Your task to perform on an android device: Go to Amazon Image 0: 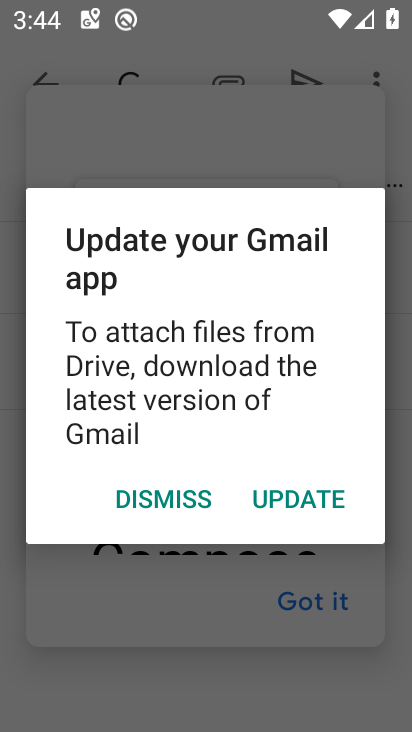
Step 0: click (169, 496)
Your task to perform on an android device: Go to Amazon Image 1: 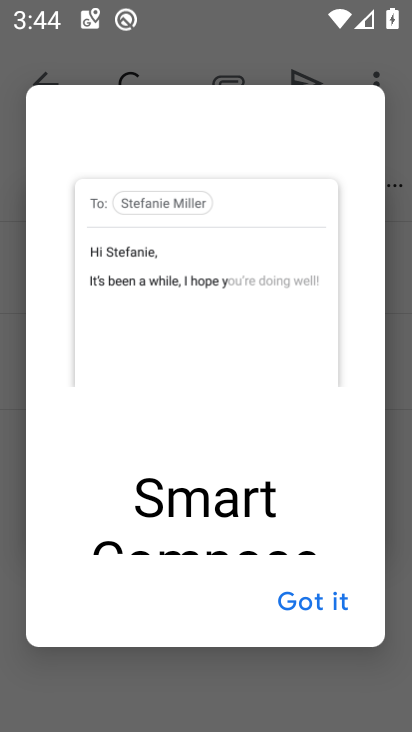
Step 1: click (311, 607)
Your task to perform on an android device: Go to Amazon Image 2: 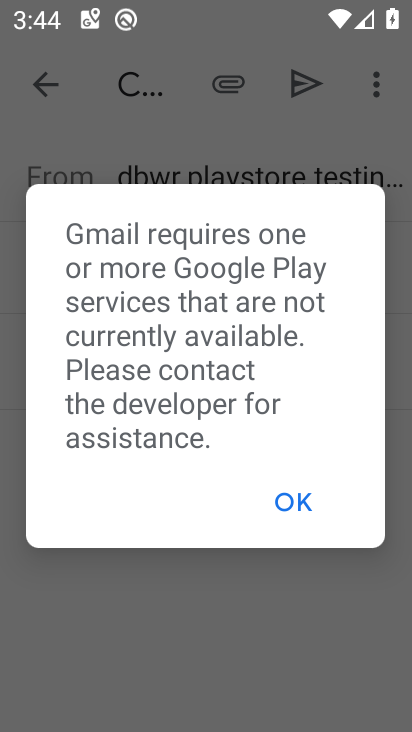
Step 2: click (306, 492)
Your task to perform on an android device: Go to Amazon Image 3: 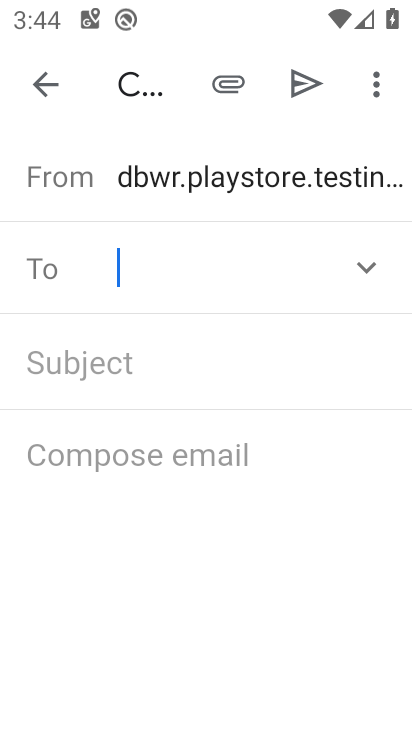
Step 3: click (56, 78)
Your task to perform on an android device: Go to Amazon Image 4: 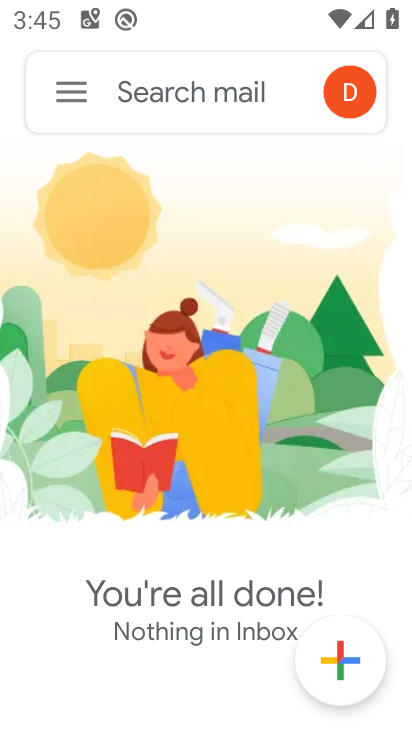
Step 4: press back button
Your task to perform on an android device: Go to Amazon Image 5: 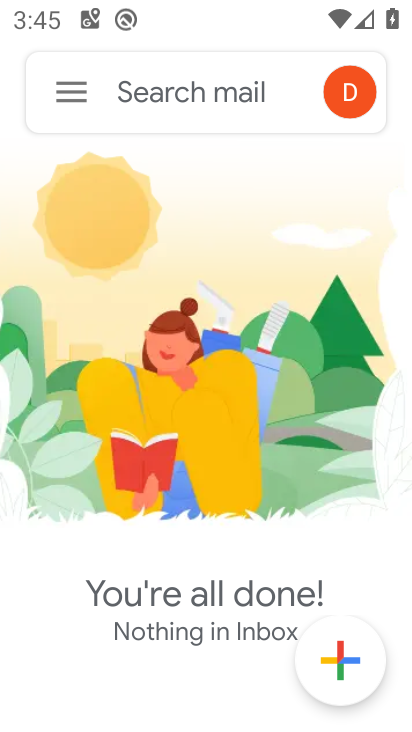
Step 5: press back button
Your task to perform on an android device: Go to Amazon Image 6: 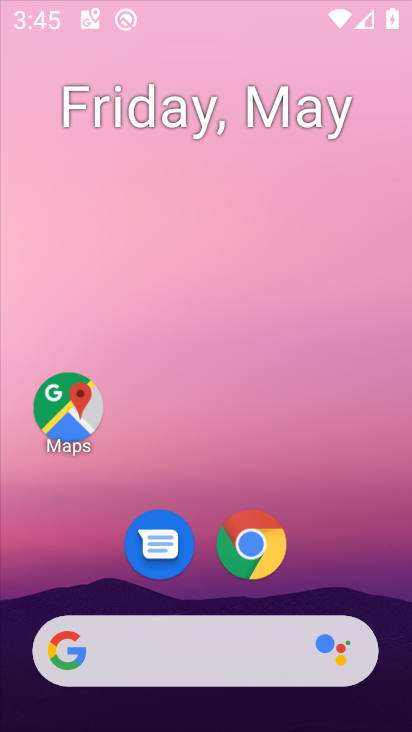
Step 6: press back button
Your task to perform on an android device: Go to Amazon Image 7: 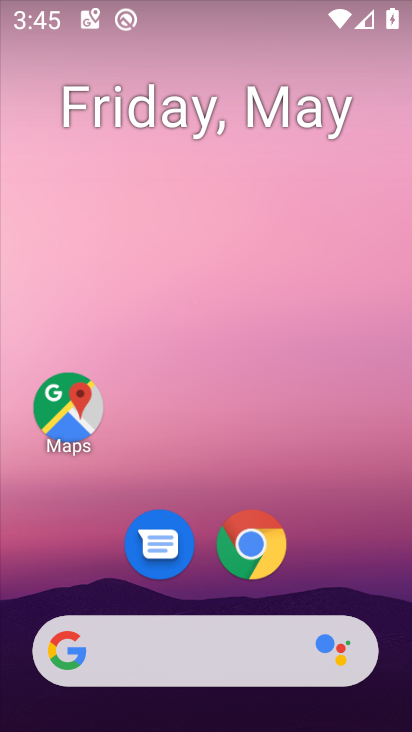
Step 7: drag from (216, 716) to (203, 89)
Your task to perform on an android device: Go to Amazon Image 8: 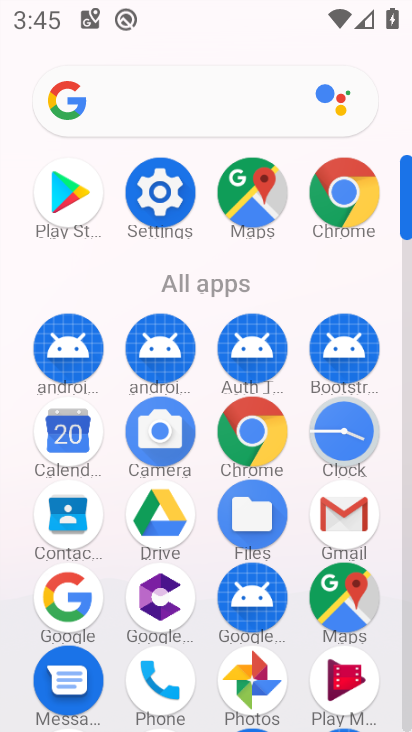
Step 8: click (341, 193)
Your task to perform on an android device: Go to Amazon Image 9: 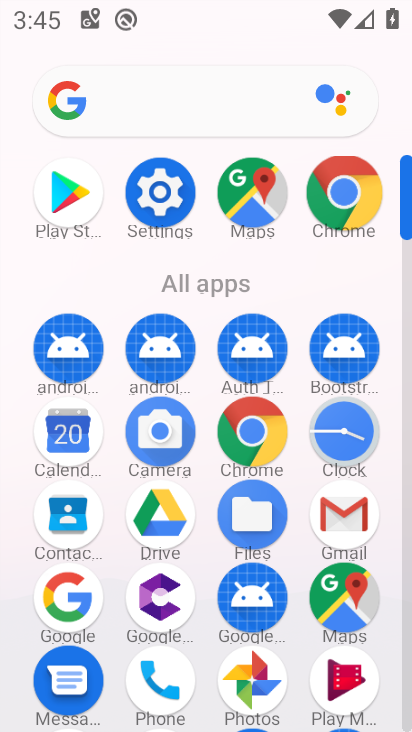
Step 9: click (341, 193)
Your task to perform on an android device: Go to Amazon Image 10: 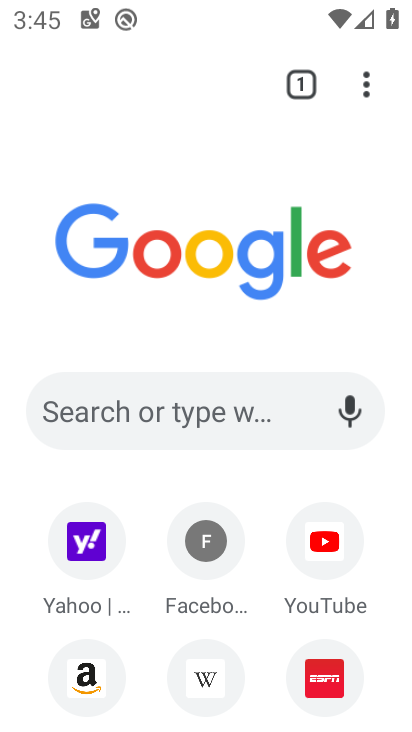
Step 10: click (61, 664)
Your task to perform on an android device: Go to Amazon Image 11: 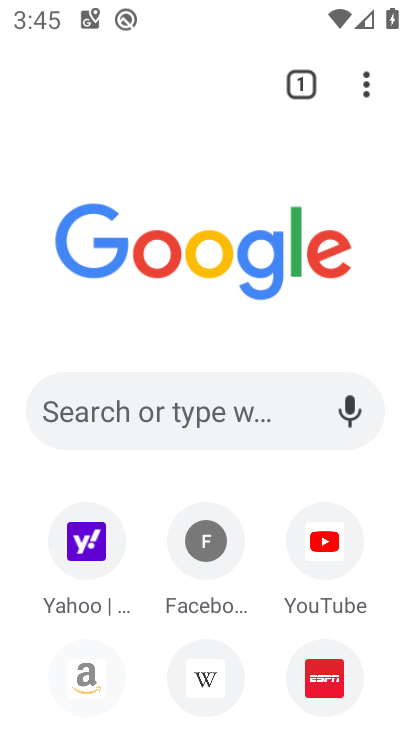
Step 11: click (67, 678)
Your task to perform on an android device: Go to Amazon Image 12: 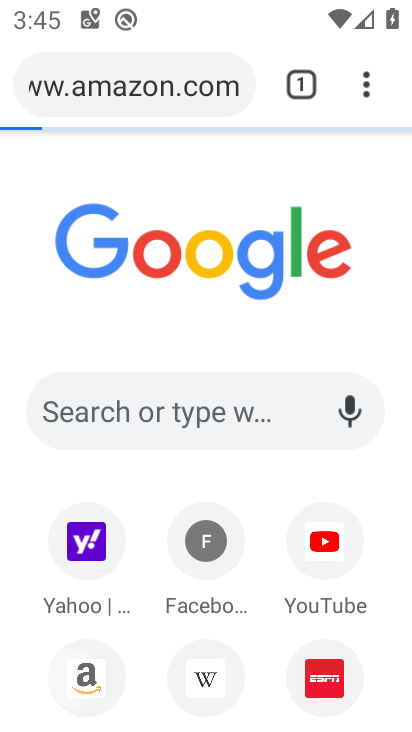
Step 12: click (78, 675)
Your task to perform on an android device: Go to Amazon Image 13: 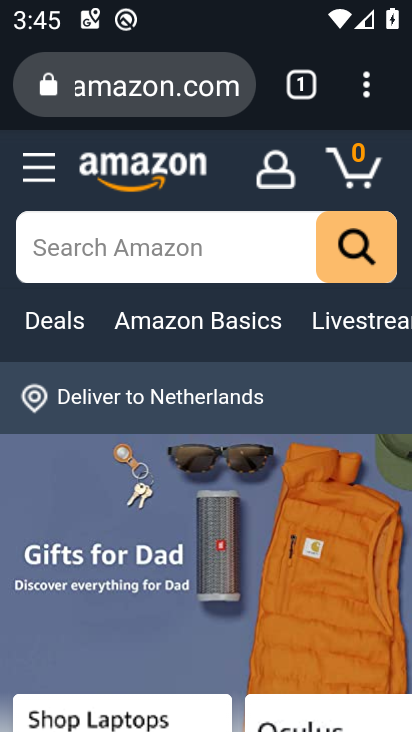
Step 13: task complete